Your task to perform on an android device: Is it going to rain this weekend? Image 0: 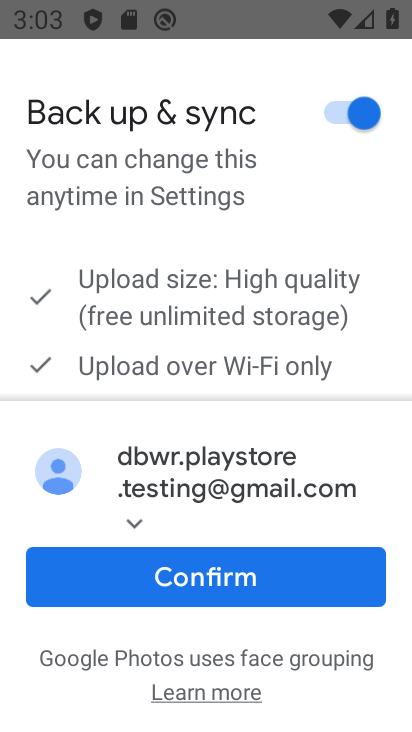
Step 0: press home button
Your task to perform on an android device: Is it going to rain this weekend? Image 1: 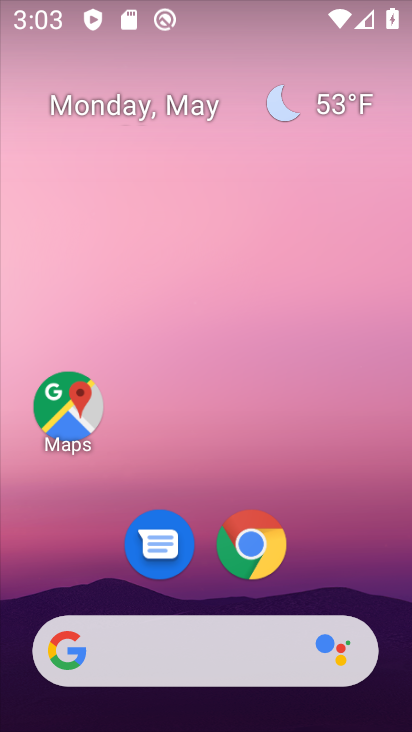
Step 1: click (261, 680)
Your task to perform on an android device: Is it going to rain this weekend? Image 2: 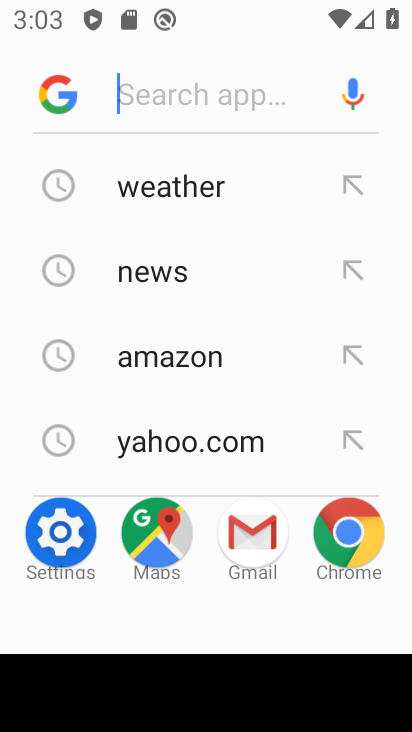
Step 2: type "is it going to rain this weekend?"
Your task to perform on an android device: Is it going to rain this weekend? Image 3: 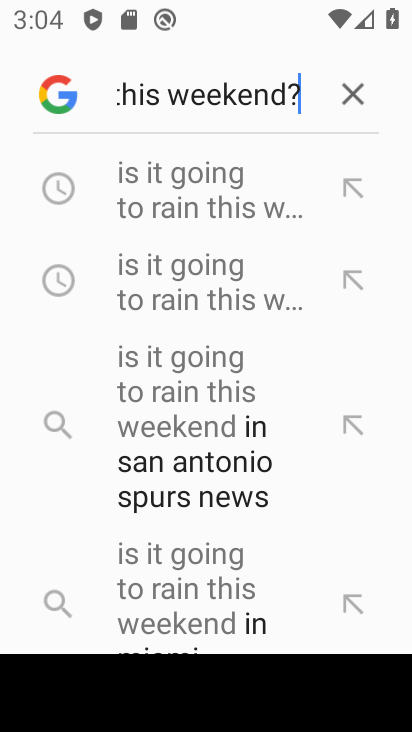
Step 3: click (221, 216)
Your task to perform on an android device: Is it going to rain this weekend? Image 4: 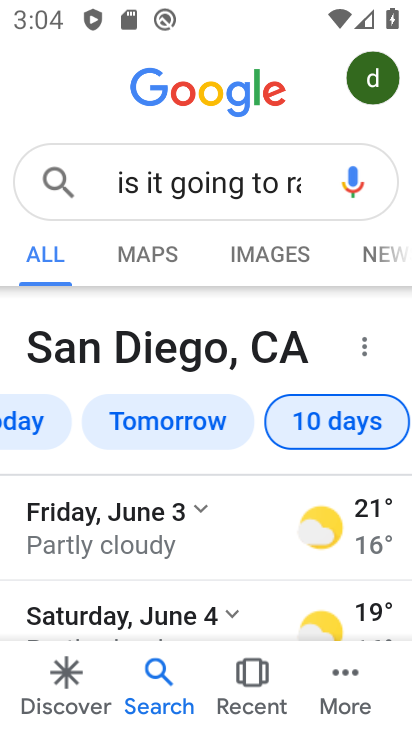
Step 4: task complete